Your task to perform on an android device: Go to accessibility settings Image 0: 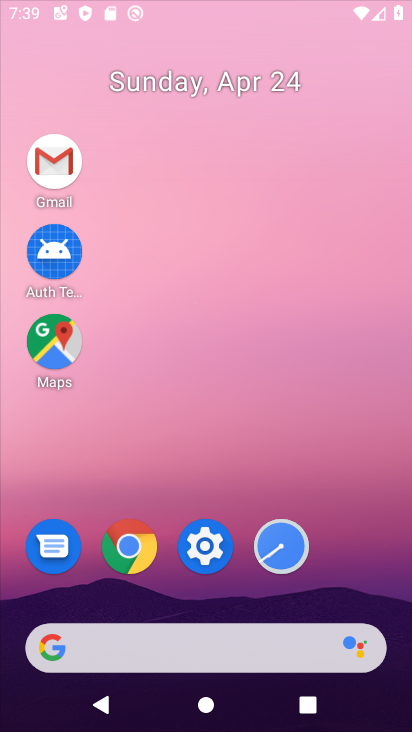
Step 0: click (130, 549)
Your task to perform on an android device: Go to accessibility settings Image 1: 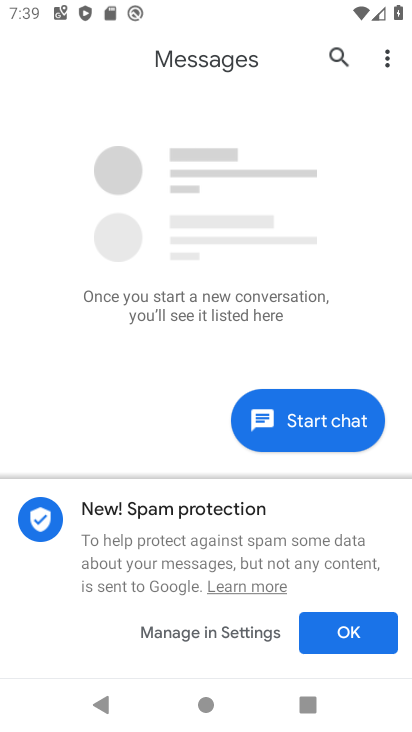
Step 1: press home button
Your task to perform on an android device: Go to accessibility settings Image 2: 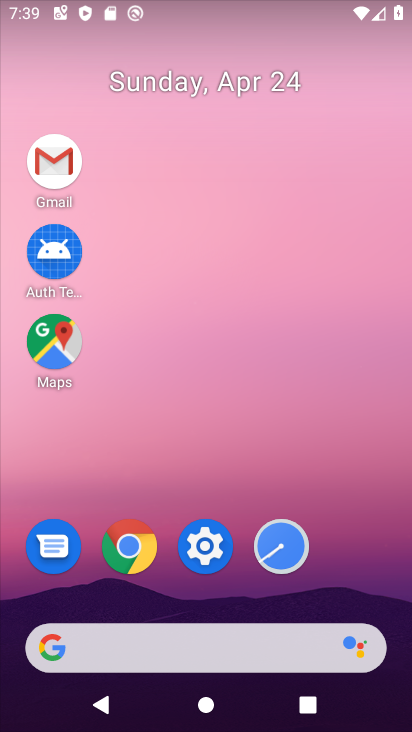
Step 2: click (206, 547)
Your task to perform on an android device: Go to accessibility settings Image 3: 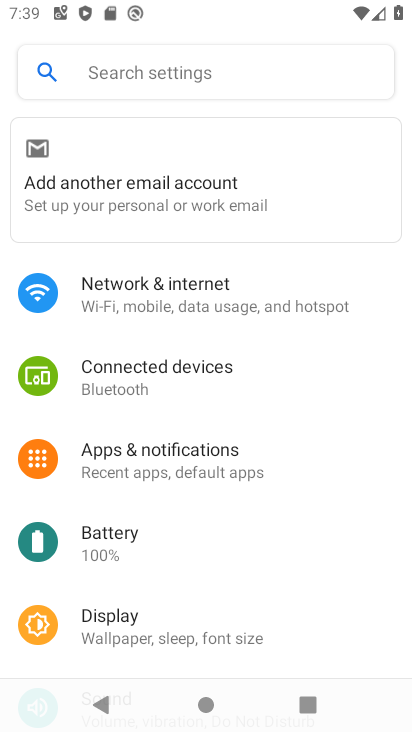
Step 3: drag from (231, 575) to (193, 128)
Your task to perform on an android device: Go to accessibility settings Image 4: 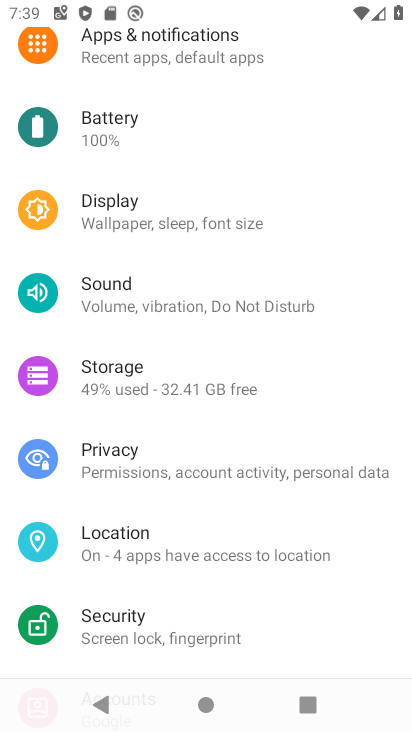
Step 4: drag from (254, 523) to (212, 45)
Your task to perform on an android device: Go to accessibility settings Image 5: 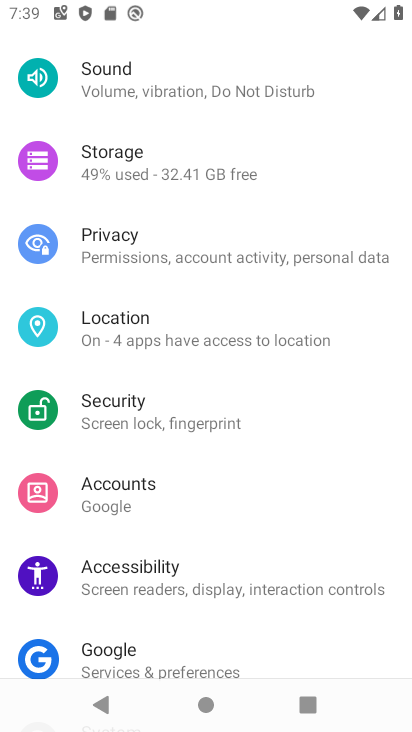
Step 5: click (125, 568)
Your task to perform on an android device: Go to accessibility settings Image 6: 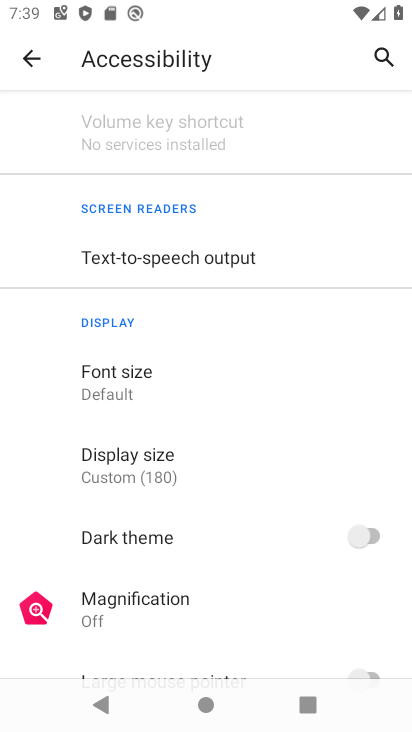
Step 6: task complete